Your task to perform on an android device: remove spam from my inbox in the gmail app Image 0: 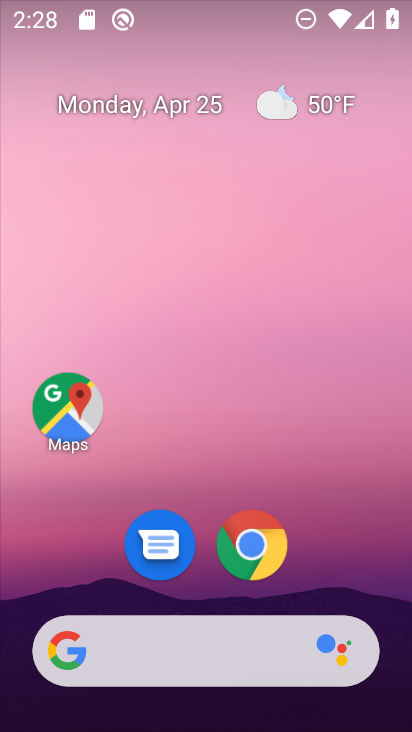
Step 0: drag from (336, 506) to (242, 3)
Your task to perform on an android device: remove spam from my inbox in the gmail app Image 1: 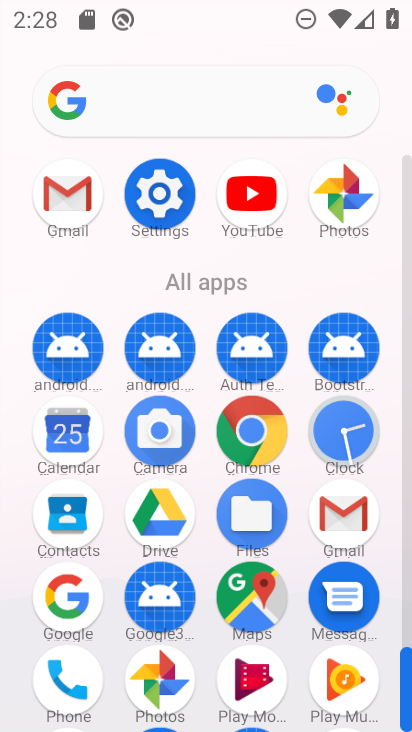
Step 1: click (337, 507)
Your task to perform on an android device: remove spam from my inbox in the gmail app Image 2: 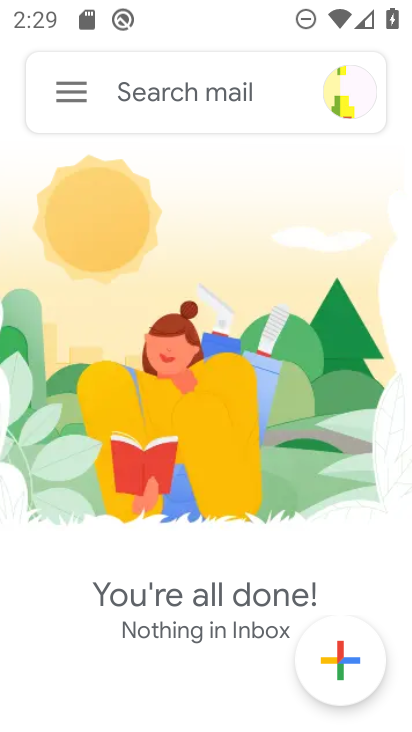
Step 2: click (80, 96)
Your task to perform on an android device: remove spam from my inbox in the gmail app Image 3: 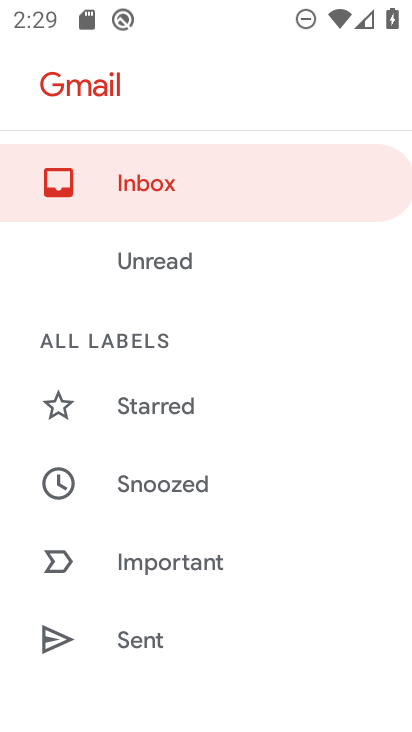
Step 3: drag from (280, 611) to (211, 175)
Your task to perform on an android device: remove spam from my inbox in the gmail app Image 4: 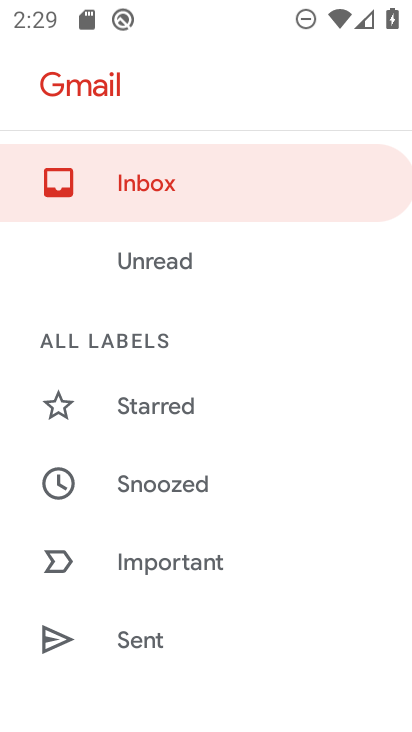
Step 4: drag from (205, 637) to (218, 35)
Your task to perform on an android device: remove spam from my inbox in the gmail app Image 5: 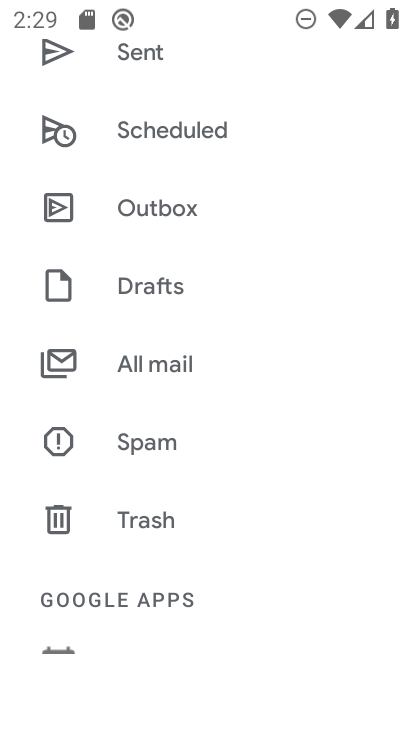
Step 5: click (147, 435)
Your task to perform on an android device: remove spam from my inbox in the gmail app Image 6: 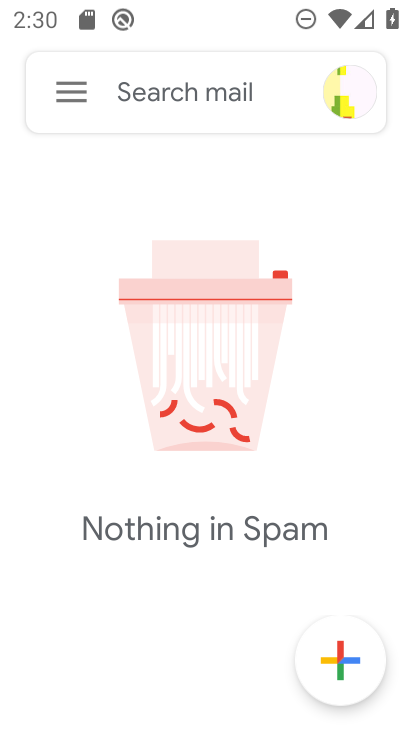
Step 6: task complete